Your task to perform on an android device: Go to privacy settings Image 0: 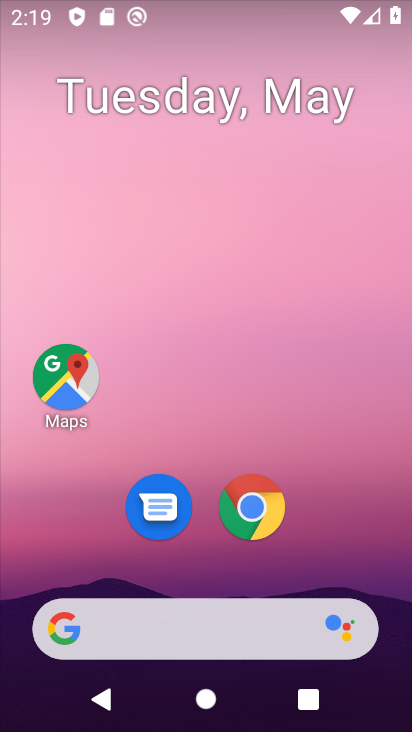
Step 0: click (255, 515)
Your task to perform on an android device: Go to privacy settings Image 1: 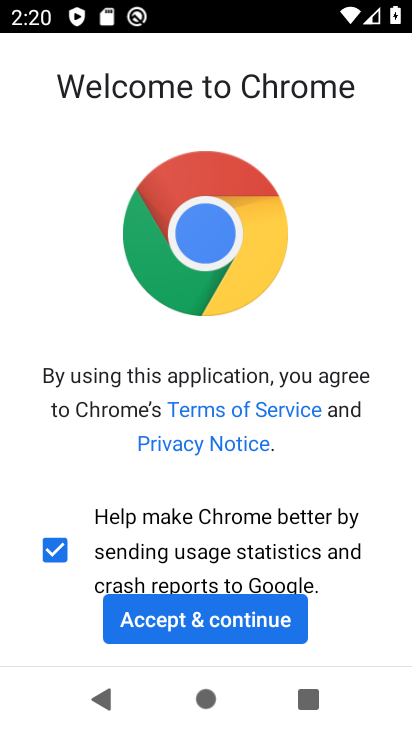
Step 1: click (250, 631)
Your task to perform on an android device: Go to privacy settings Image 2: 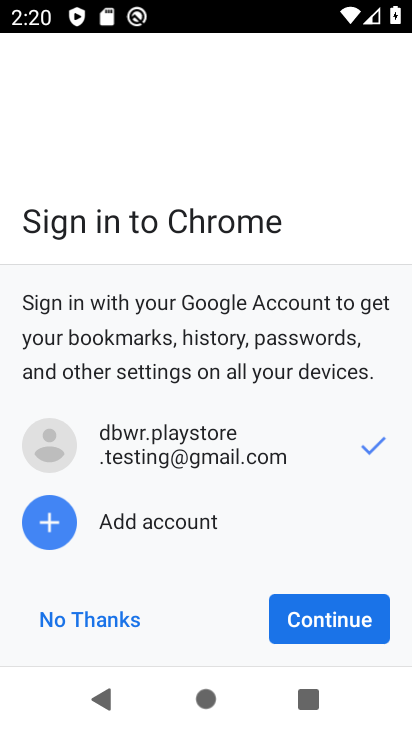
Step 2: click (311, 615)
Your task to perform on an android device: Go to privacy settings Image 3: 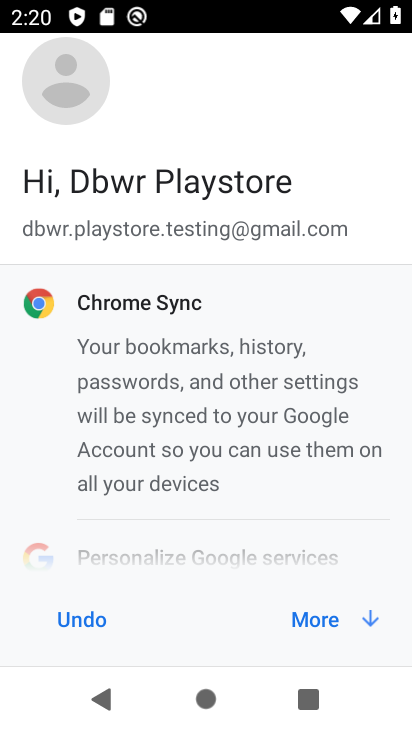
Step 3: click (328, 621)
Your task to perform on an android device: Go to privacy settings Image 4: 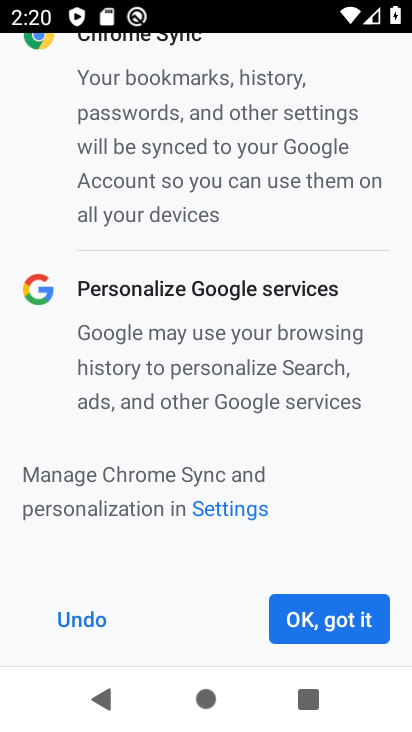
Step 4: click (328, 621)
Your task to perform on an android device: Go to privacy settings Image 5: 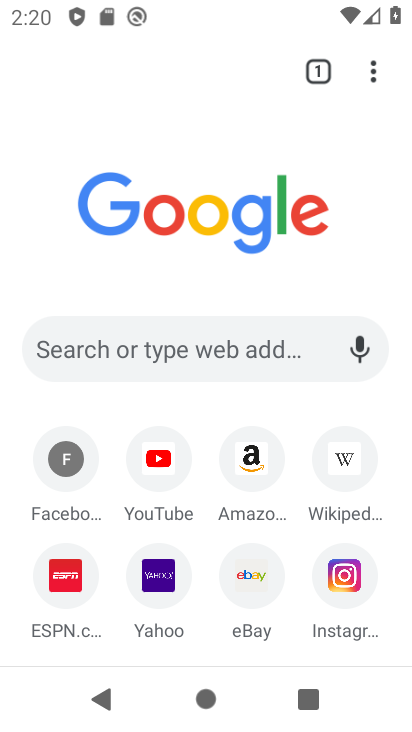
Step 5: drag from (379, 82) to (297, 509)
Your task to perform on an android device: Go to privacy settings Image 6: 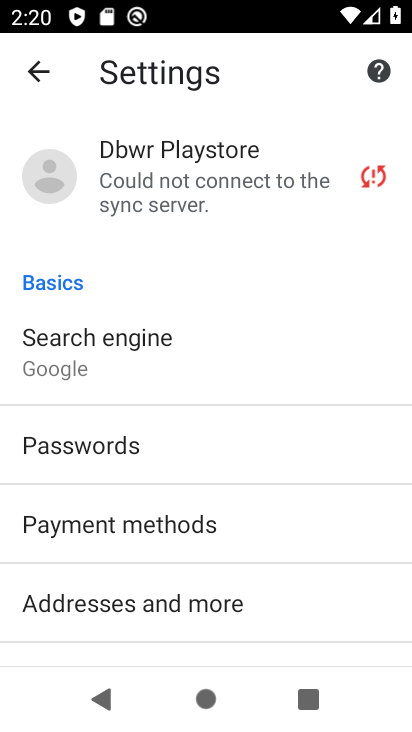
Step 6: drag from (148, 627) to (295, 244)
Your task to perform on an android device: Go to privacy settings Image 7: 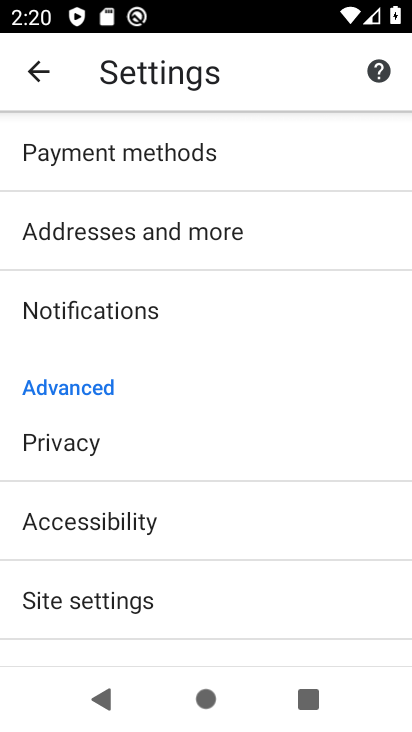
Step 7: click (167, 446)
Your task to perform on an android device: Go to privacy settings Image 8: 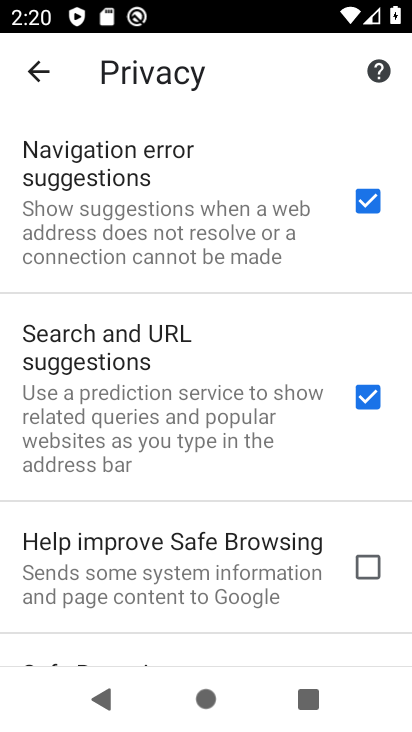
Step 8: task complete